Your task to perform on an android device: check the backup settings in the google photos Image 0: 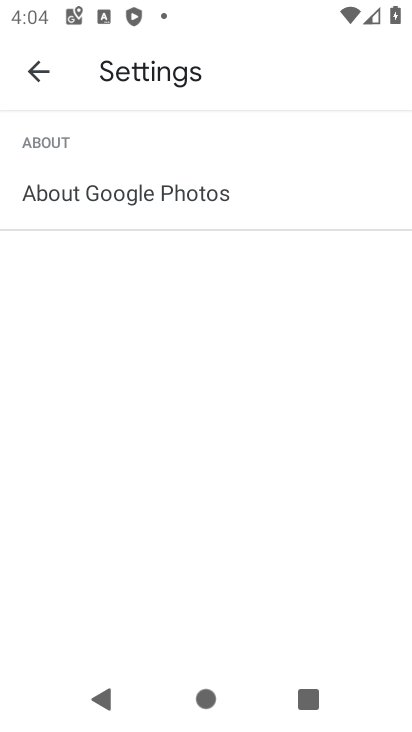
Step 0: press home button
Your task to perform on an android device: check the backup settings in the google photos Image 1: 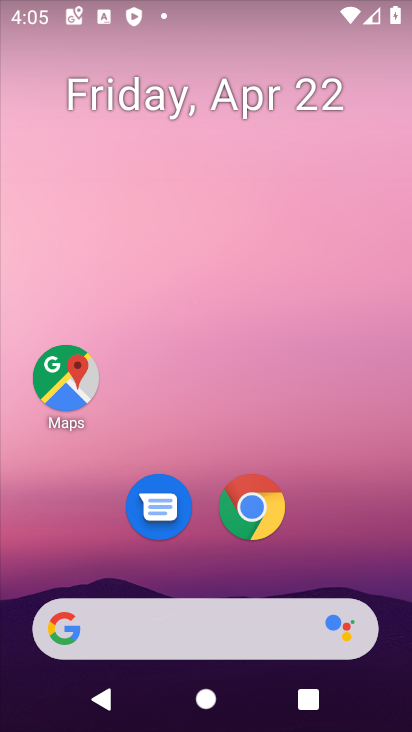
Step 1: drag from (345, 541) to (309, 55)
Your task to perform on an android device: check the backup settings in the google photos Image 2: 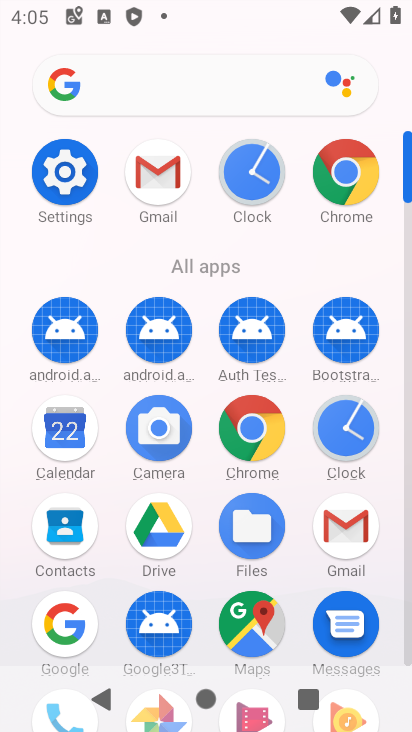
Step 2: drag from (206, 500) to (217, 170)
Your task to perform on an android device: check the backup settings in the google photos Image 3: 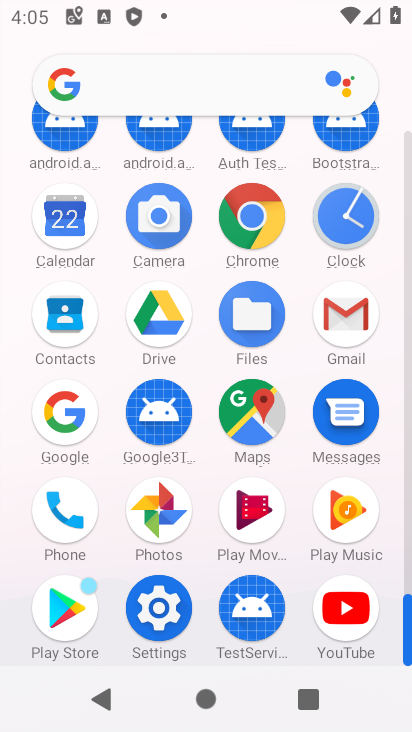
Step 3: click (162, 502)
Your task to perform on an android device: check the backup settings in the google photos Image 4: 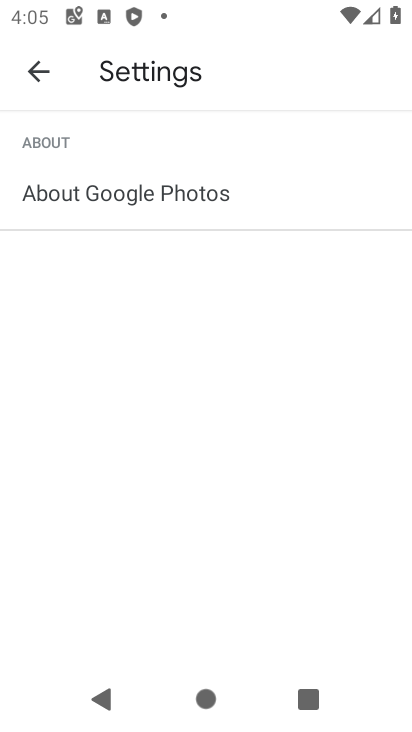
Step 4: click (39, 70)
Your task to perform on an android device: check the backup settings in the google photos Image 5: 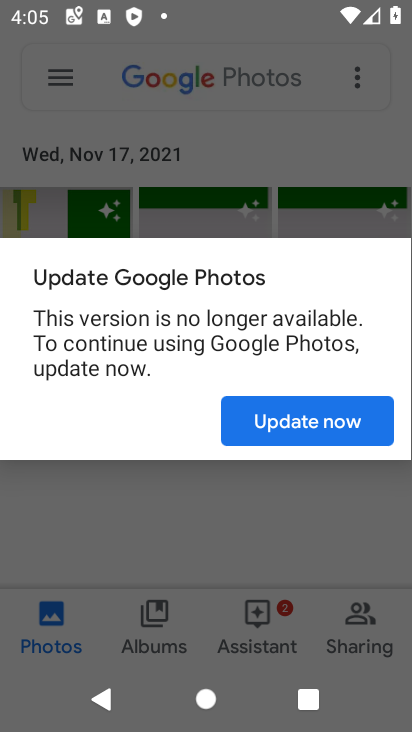
Step 5: click (291, 416)
Your task to perform on an android device: check the backup settings in the google photos Image 6: 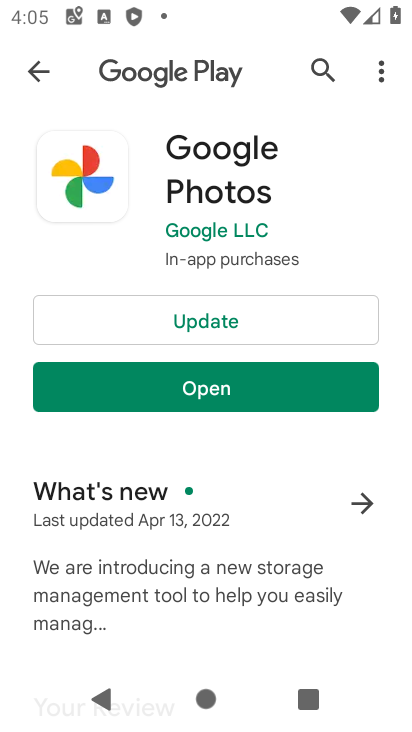
Step 6: click (301, 379)
Your task to perform on an android device: check the backup settings in the google photos Image 7: 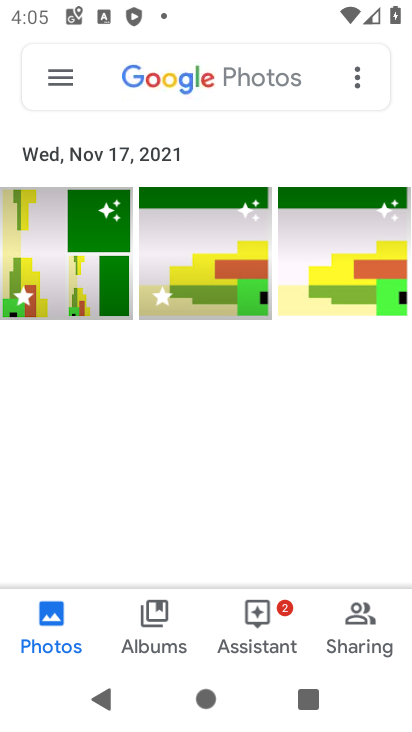
Step 7: click (67, 76)
Your task to perform on an android device: check the backup settings in the google photos Image 8: 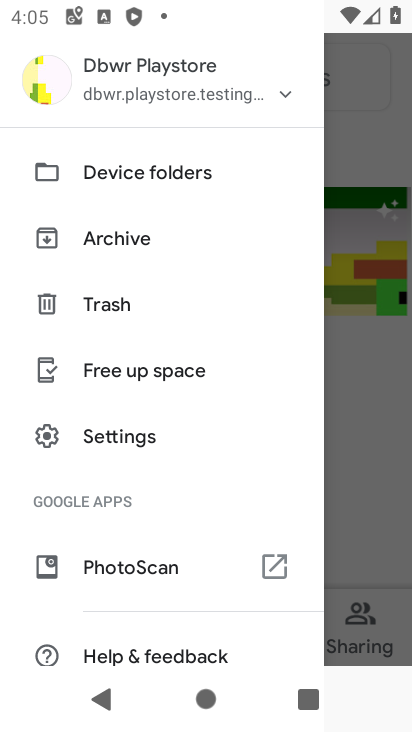
Step 8: click (149, 429)
Your task to perform on an android device: check the backup settings in the google photos Image 9: 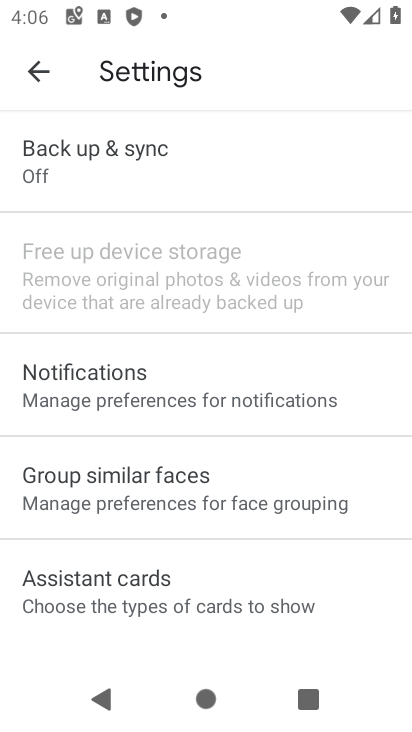
Step 9: click (190, 158)
Your task to perform on an android device: check the backup settings in the google photos Image 10: 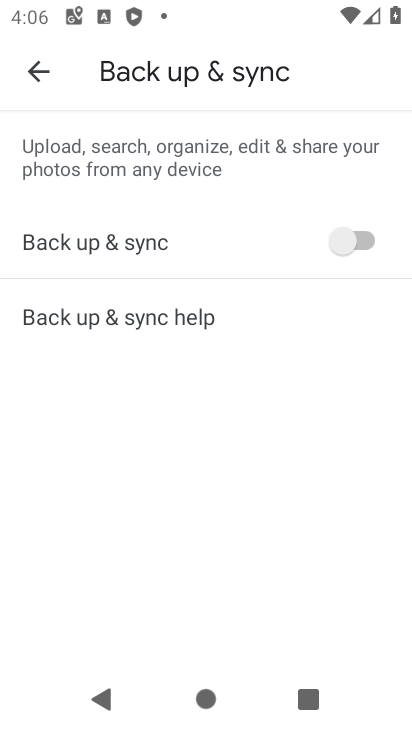
Step 10: click (352, 234)
Your task to perform on an android device: check the backup settings in the google photos Image 11: 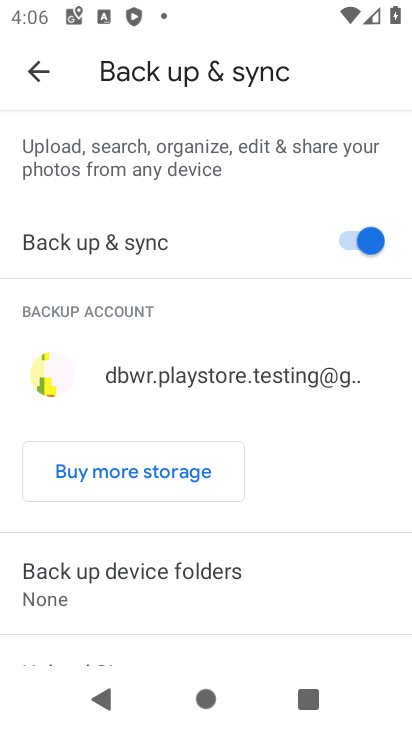
Step 11: task complete